Your task to perform on an android device: check out phone information Image 0: 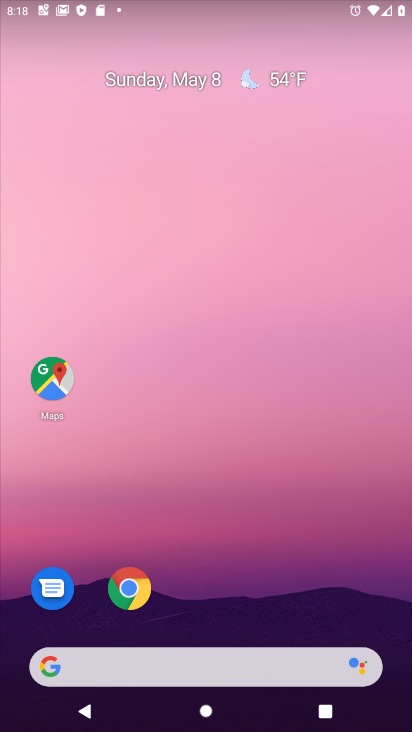
Step 0: drag from (270, 629) to (242, 161)
Your task to perform on an android device: check out phone information Image 1: 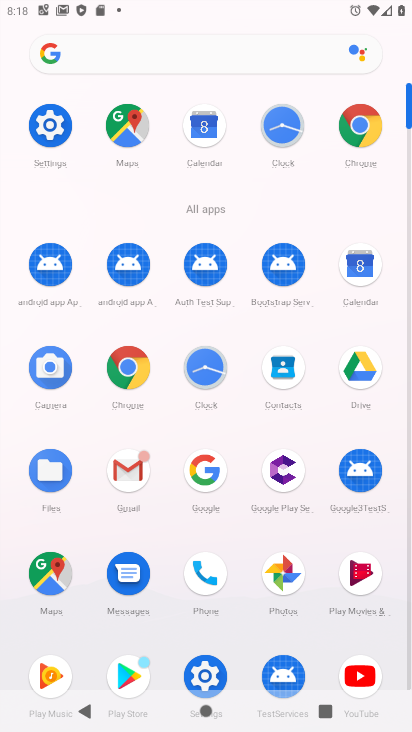
Step 1: drag from (249, 171) to (237, 228)
Your task to perform on an android device: check out phone information Image 2: 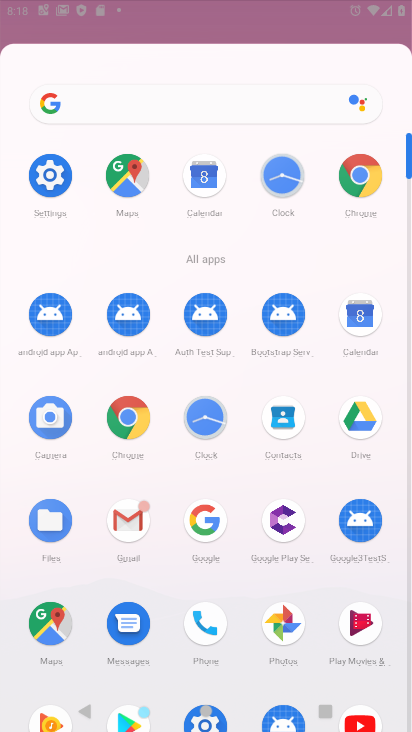
Step 2: drag from (216, 272) to (214, 124)
Your task to perform on an android device: check out phone information Image 3: 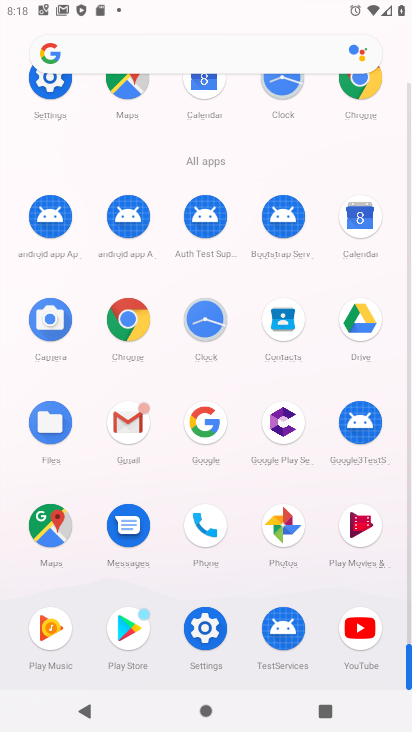
Step 3: click (213, 626)
Your task to perform on an android device: check out phone information Image 4: 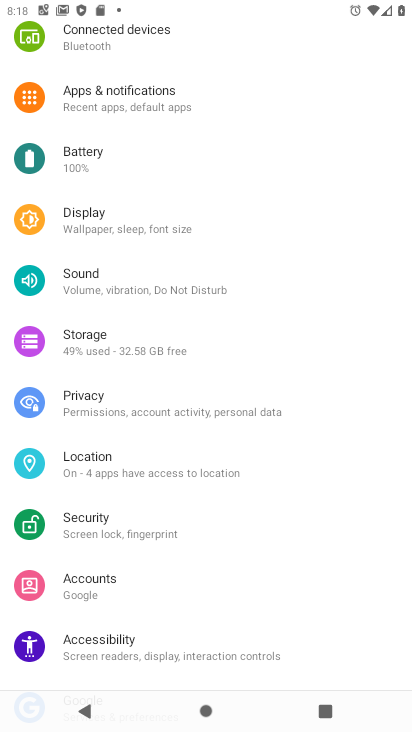
Step 4: drag from (202, 588) to (164, 111)
Your task to perform on an android device: check out phone information Image 5: 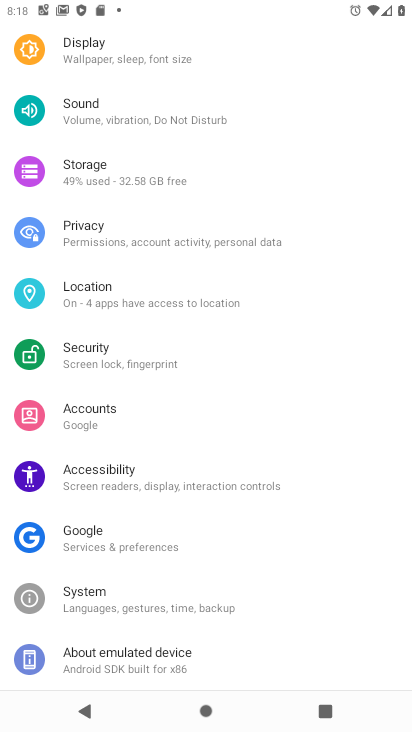
Step 5: click (97, 648)
Your task to perform on an android device: check out phone information Image 6: 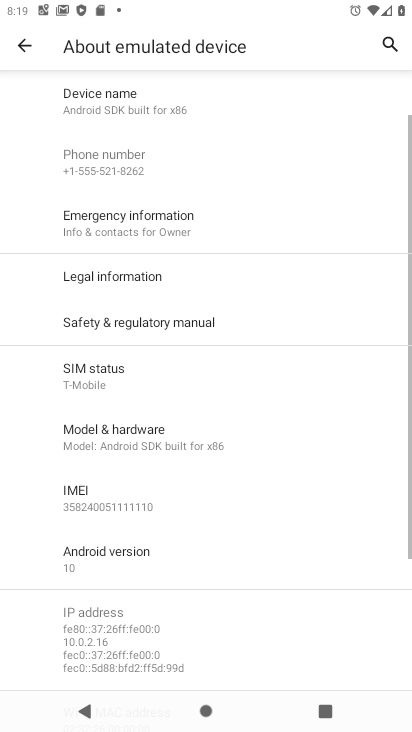
Step 6: task complete